Your task to perform on an android device: Search for pizza restaurants on Maps Image 0: 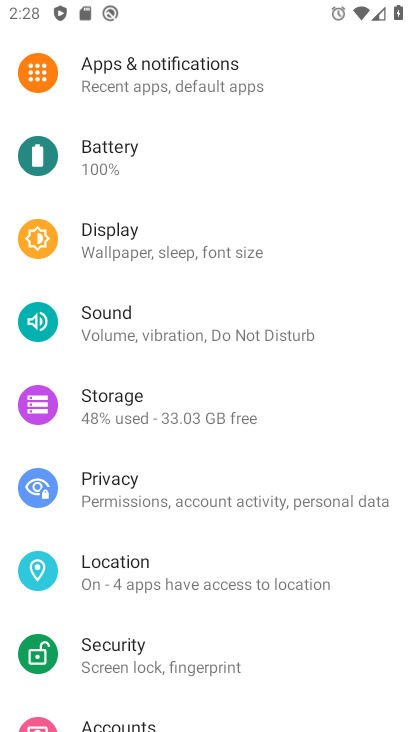
Step 0: press home button
Your task to perform on an android device: Search for pizza restaurants on Maps Image 1: 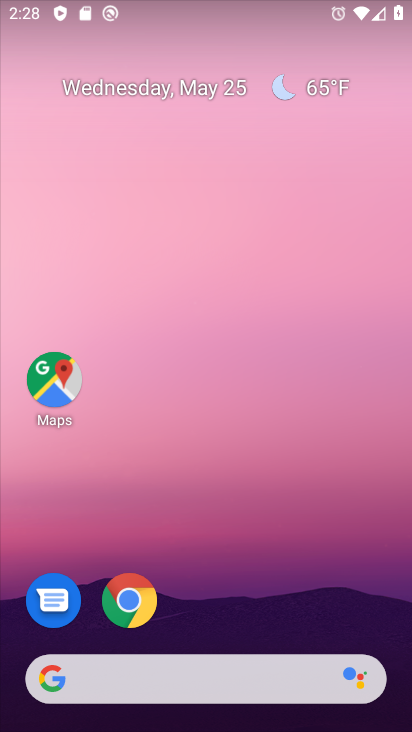
Step 1: click (49, 355)
Your task to perform on an android device: Search for pizza restaurants on Maps Image 2: 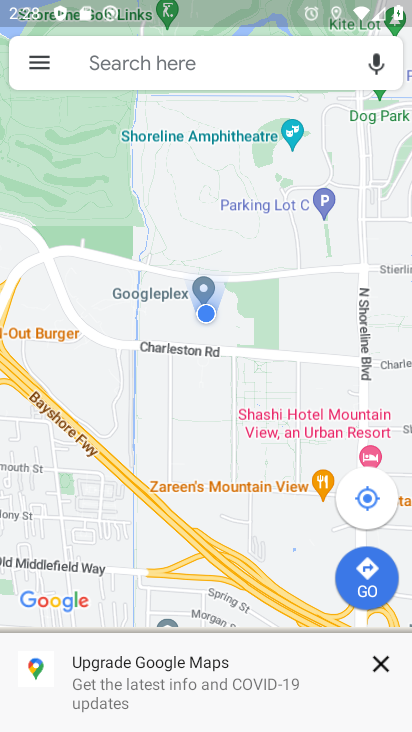
Step 2: click (209, 53)
Your task to perform on an android device: Search for pizza restaurants on Maps Image 3: 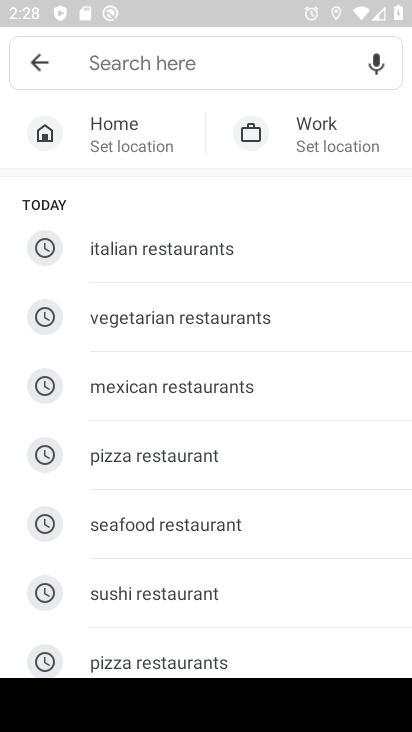
Step 3: type "pizza restaurants"
Your task to perform on an android device: Search for pizza restaurants on Maps Image 4: 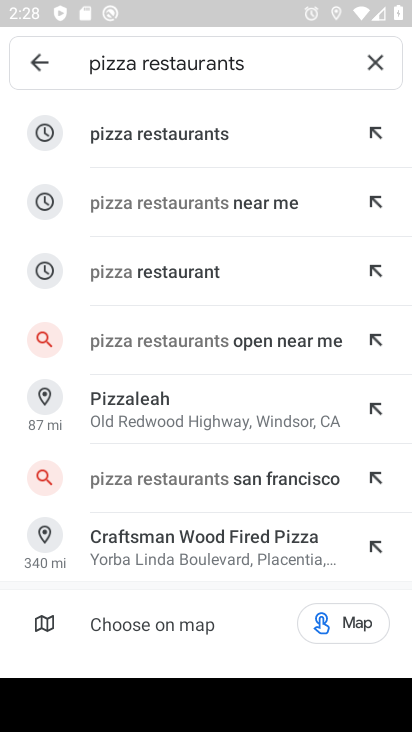
Step 4: click (211, 129)
Your task to perform on an android device: Search for pizza restaurants on Maps Image 5: 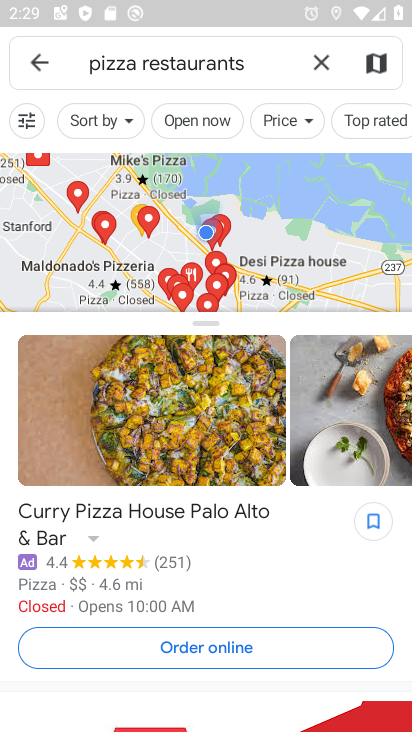
Step 5: task complete